Your task to perform on an android device: Turn off the flashlight Image 0: 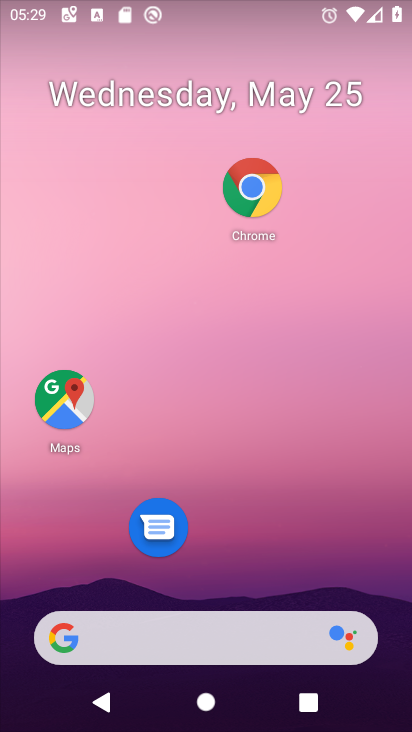
Step 0: drag from (223, 603) to (343, 2)
Your task to perform on an android device: Turn off the flashlight Image 1: 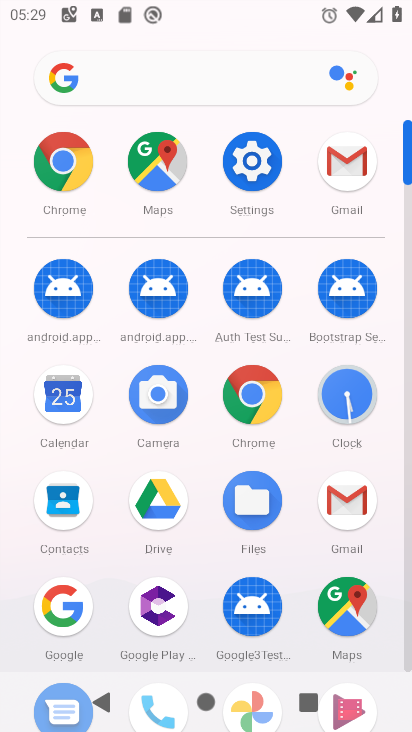
Step 1: click (237, 160)
Your task to perform on an android device: Turn off the flashlight Image 2: 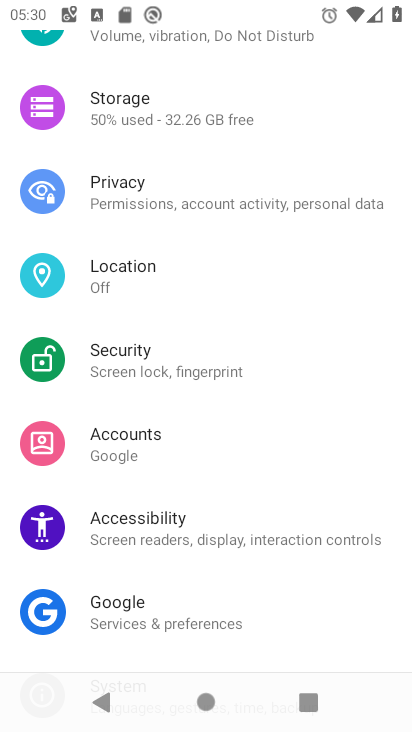
Step 2: task complete